Your task to perform on an android device: turn off notifications in google photos Image 0: 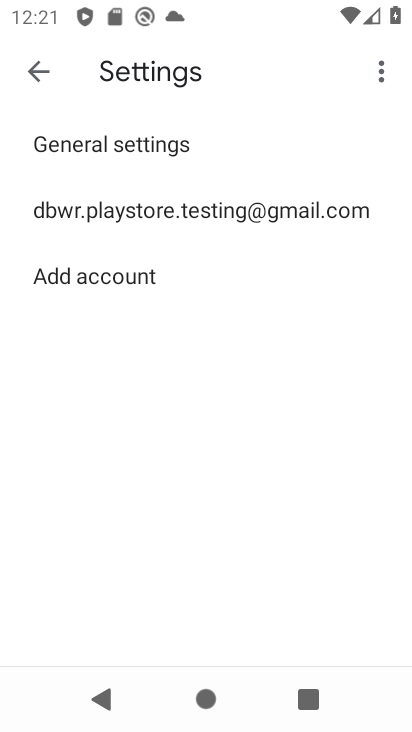
Step 0: press home button
Your task to perform on an android device: turn off notifications in google photos Image 1: 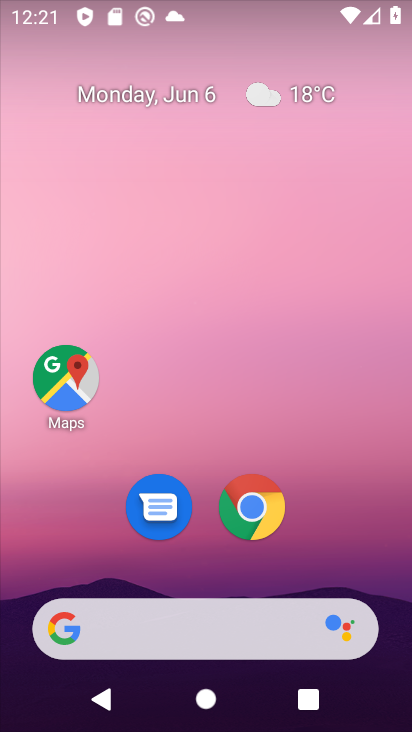
Step 1: drag from (207, 570) to (246, 185)
Your task to perform on an android device: turn off notifications in google photos Image 2: 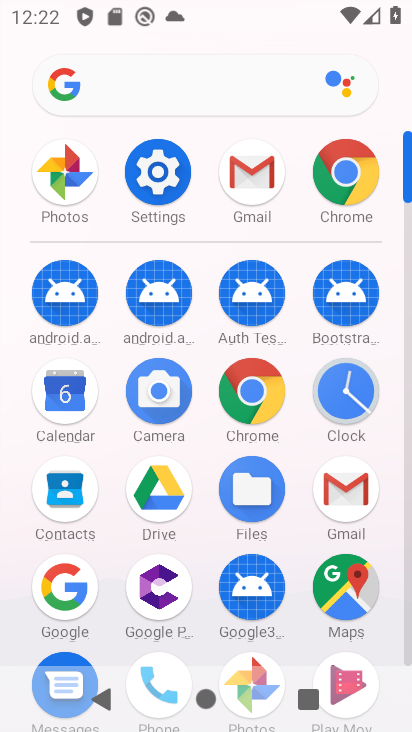
Step 2: drag from (286, 602) to (295, 367)
Your task to perform on an android device: turn off notifications in google photos Image 3: 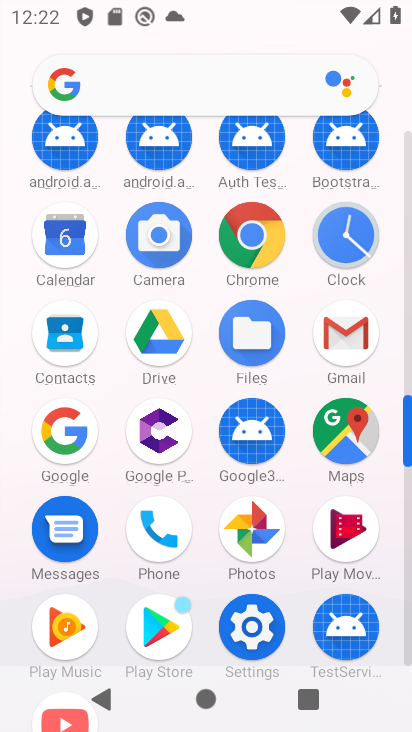
Step 3: click (266, 549)
Your task to perform on an android device: turn off notifications in google photos Image 4: 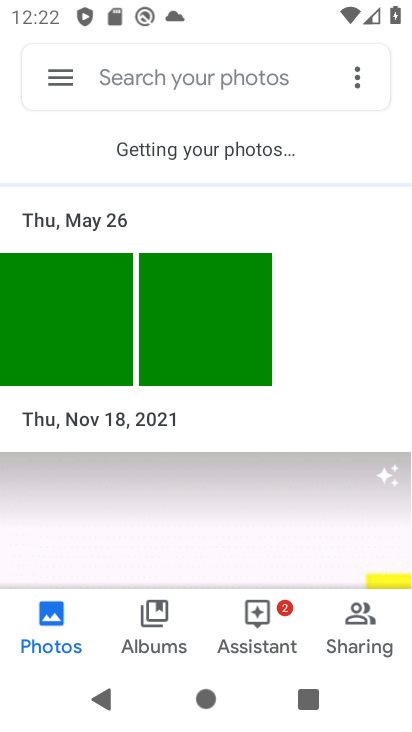
Step 4: click (73, 87)
Your task to perform on an android device: turn off notifications in google photos Image 5: 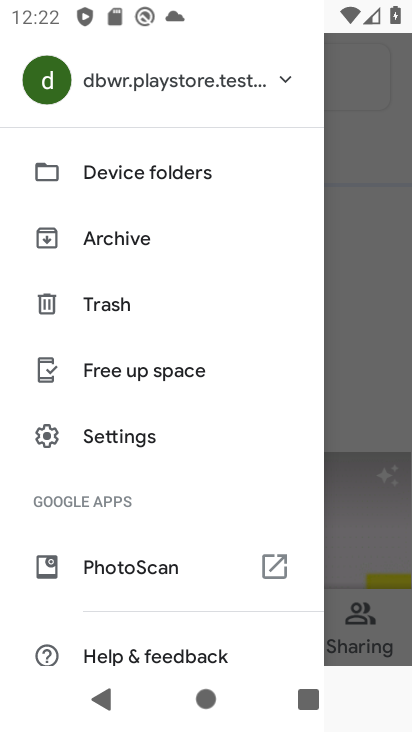
Step 5: click (141, 433)
Your task to perform on an android device: turn off notifications in google photos Image 6: 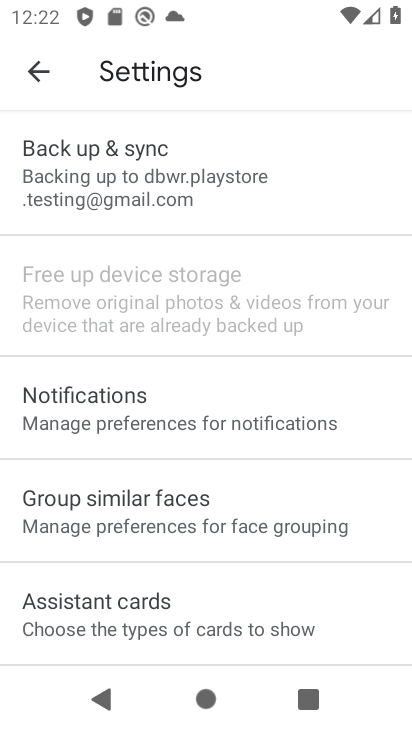
Step 6: click (154, 408)
Your task to perform on an android device: turn off notifications in google photos Image 7: 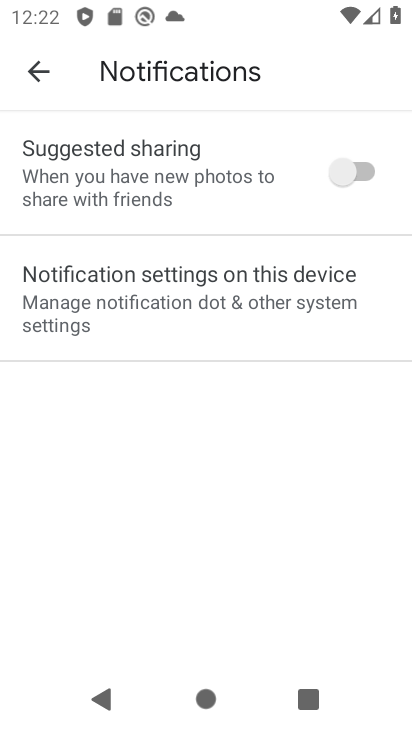
Step 7: click (145, 317)
Your task to perform on an android device: turn off notifications in google photos Image 8: 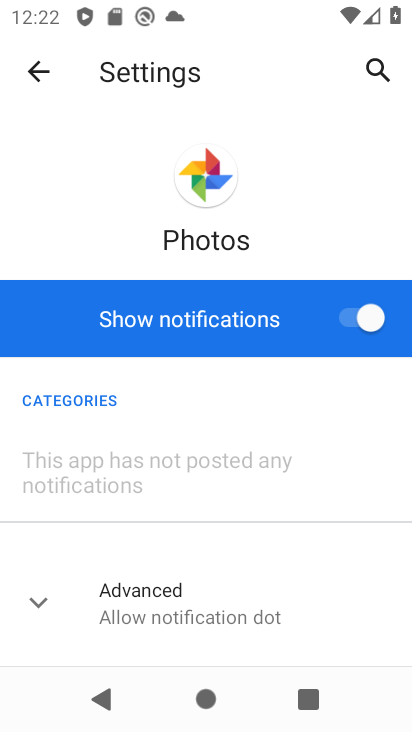
Step 8: click (341, 325)
Your task to perform on an android device: turn off notifications in google photos Image 9: 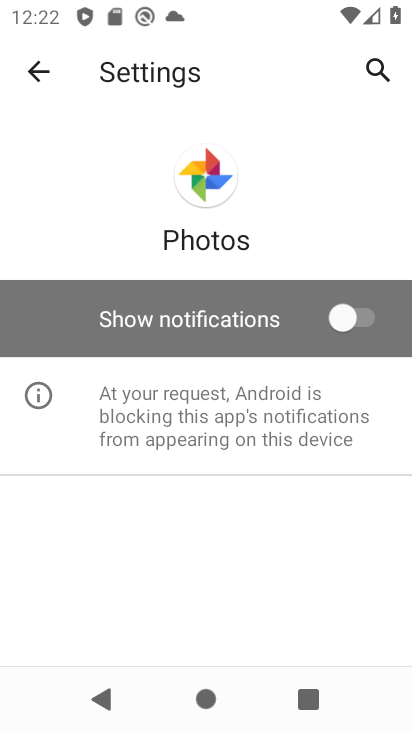
Step 9: task complete